Your task to perform on an android device: Show me productivity apps on the Play Store Image 0: 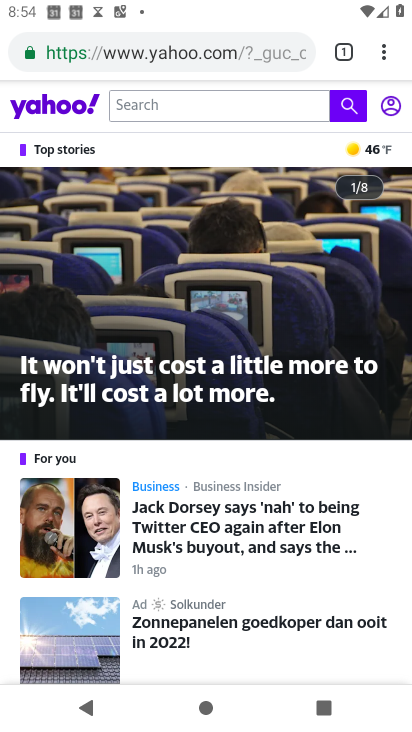
Step 0: press home button
Your task to perform on an android device: Show me productivity apps on the Play Store Image 1: 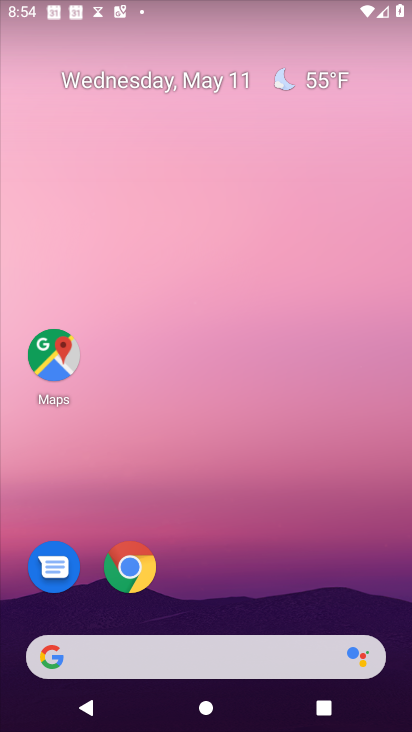
Step 1: drag from (243, 604) to (361, 47)
Your task to perform on an android device: Show me productivity apps on the Play Store Image 2: 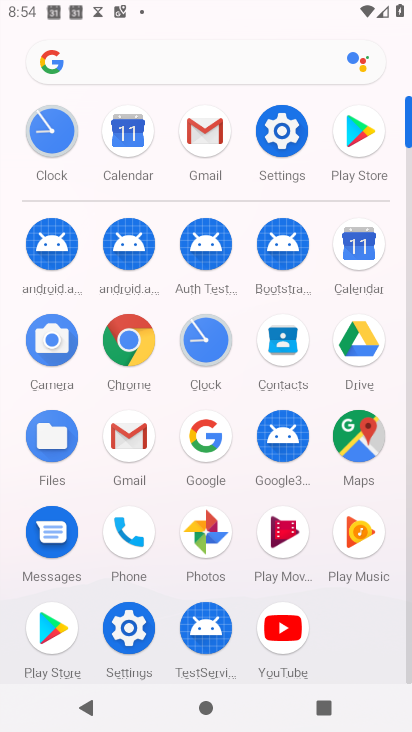
Step 2: click (47, 616)
Your task to perform on an android device: Show me productivity apps on the Play Store Image 3: 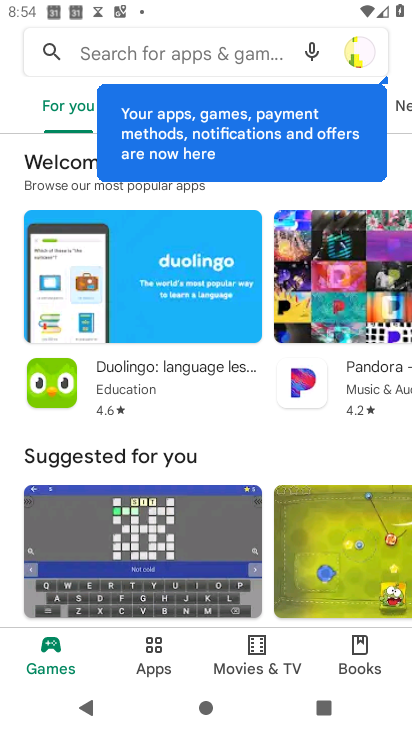
Step 3: click (155, 653)
Your task to perform on an android device: Show me productivity apps on the Play Store Image 4: 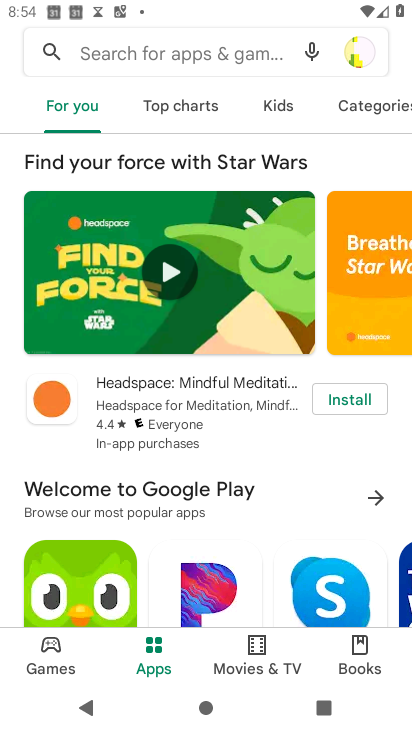
Step 4: click (349, 117)
Your task to perform on an android device: Show me productivity apps on the Play Store Image 5: 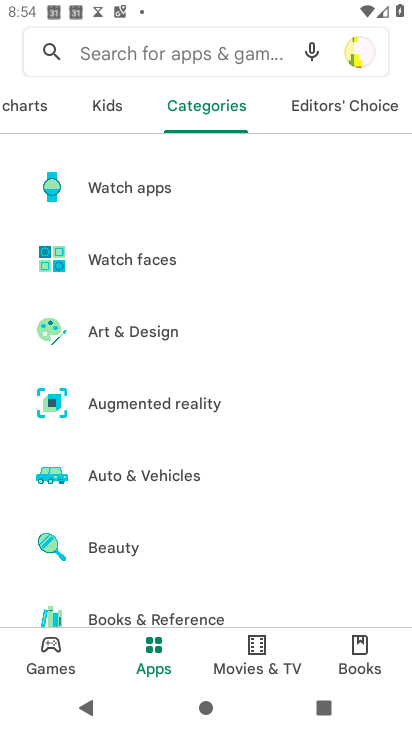
Step 5: drag from (146, 551) to (248, 157)
Your task to perform on an android device: Show me productivity apps on the Play Store Image 6: 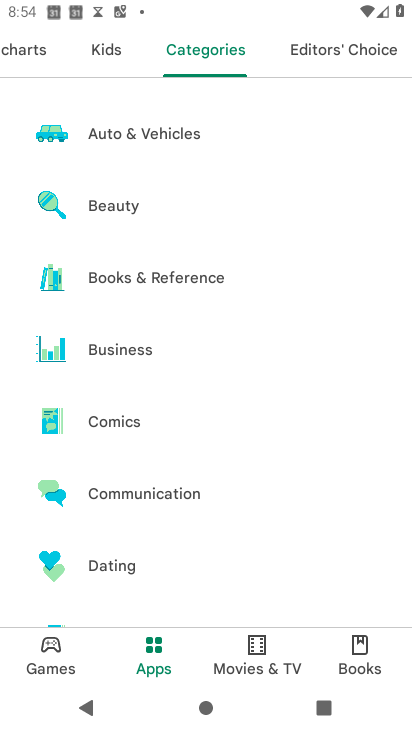
Step 6: drag from (142, 532) to (216, 29)
Your task to perform on an android device: Show me productivity apps on the Play Store Image 7: 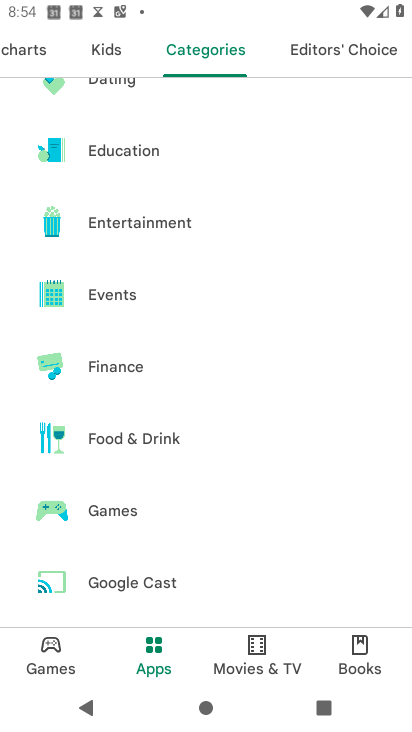
Step 7: drag from (179, 576) to (256, 13)
Your task to perform on an android device: Show me productivity apps on the Play Store Image 8: 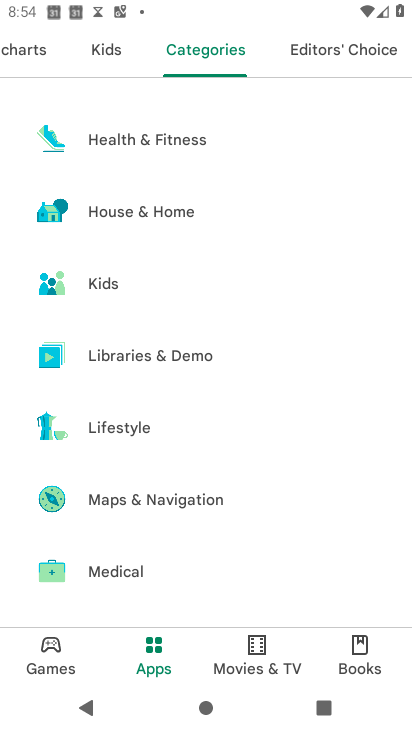
Step 8: drag from (166, 553) to (279, 52)
Your task to perform on an android device: Show me productivity apps on the Play Store Image 9: 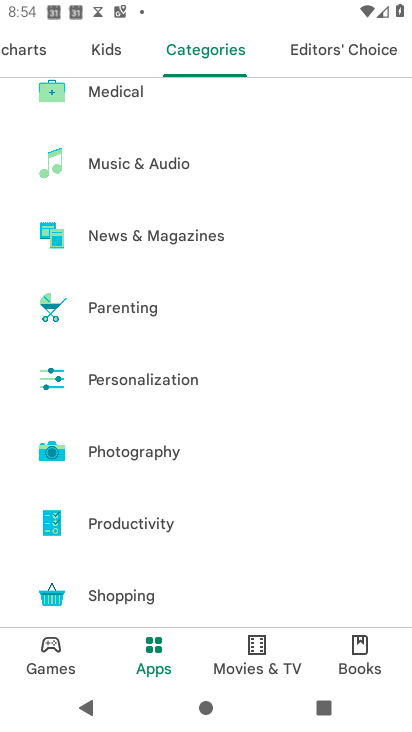
Step 9: click (143, 538)
Your task to perform on an android device: Show me productivity apps on the Play Store Image 10: 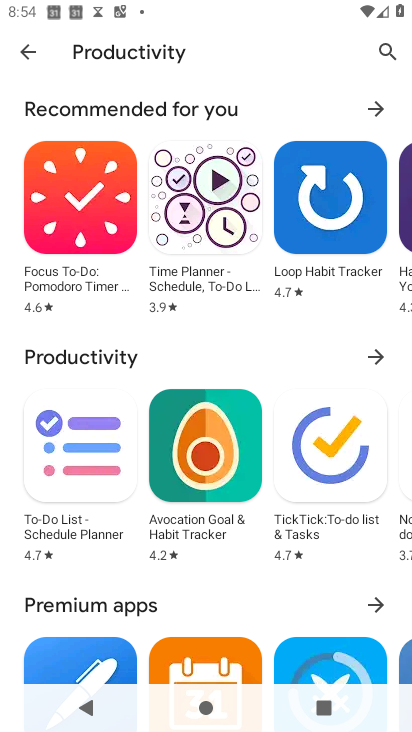
Step 10: task complete